Your task to perform on an android device: toggle priority inbox in the gmail app Image 0: 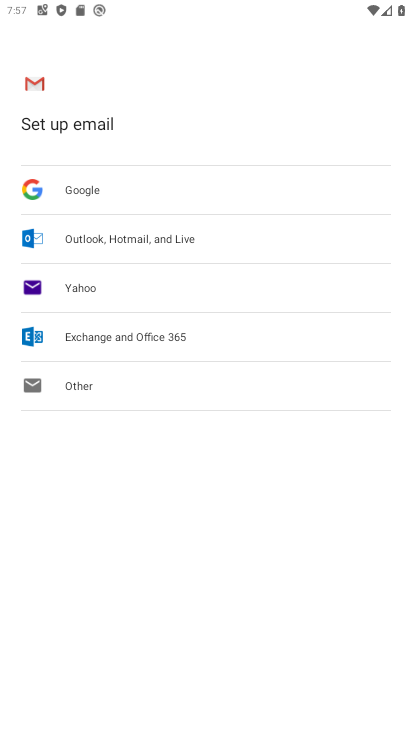
Step 0: press home button
Your task to perform on an android device: toggle priority inbox in the gmail app Image 1: 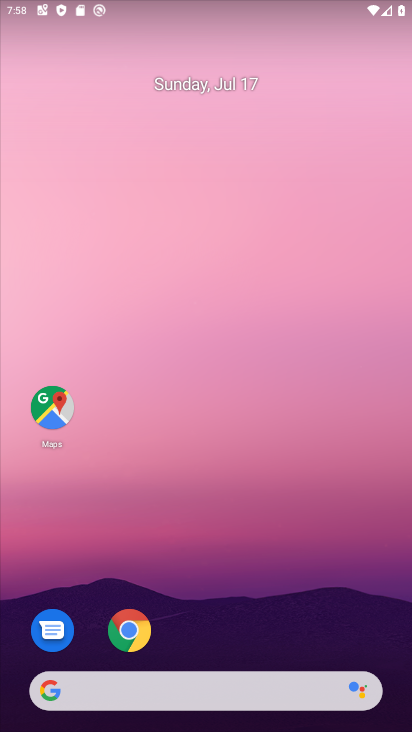
Step 1: drag from (144, 245) to (149, 110)
Your task to perform on an android device: toggle priority inbox in the gmail app Image 2: 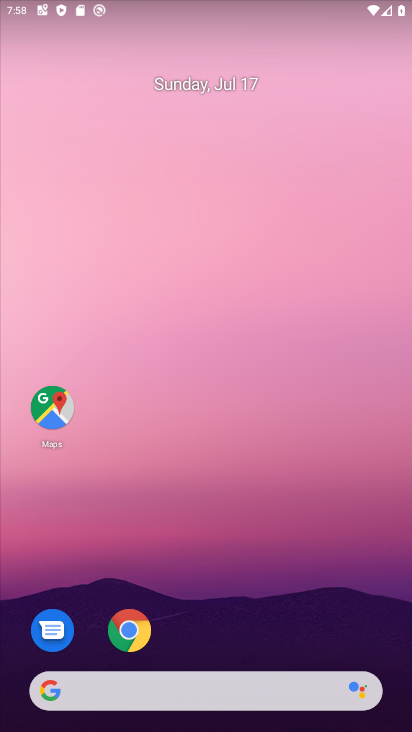
Step 2: drag from (187, 718) to (218, 3)
Your task to perform on an android device: toggle priority inbox in the gmail app Image 3: 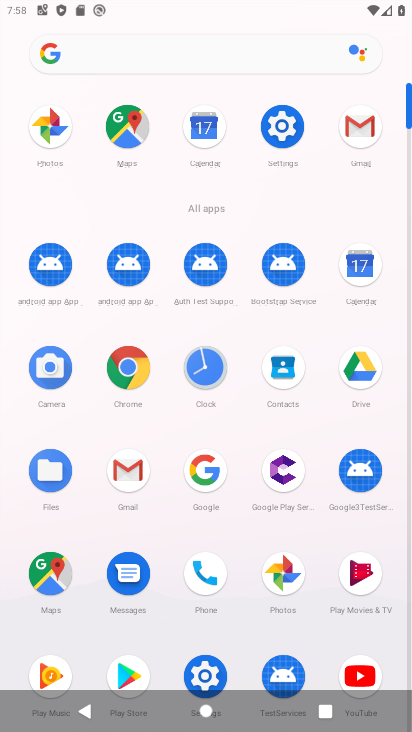
Step 3: click (345, 122)
Your task to perform on an android device: toggle priority inbox in the gmail app Image 4: 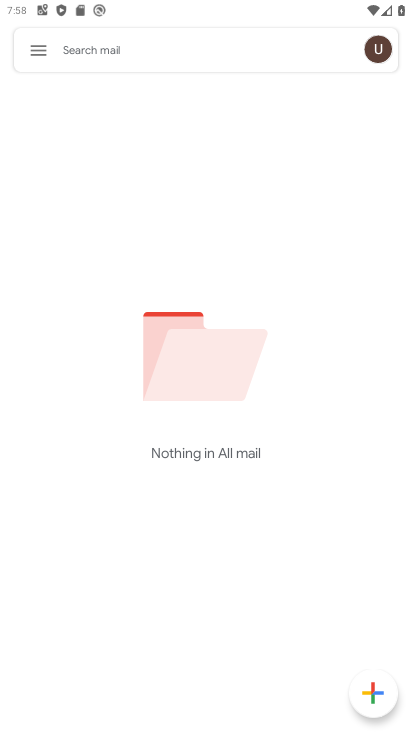
Step 4: click (33, 58)
Your task to perform on an android device: toggle priority inbox in the gmail app Image 5: 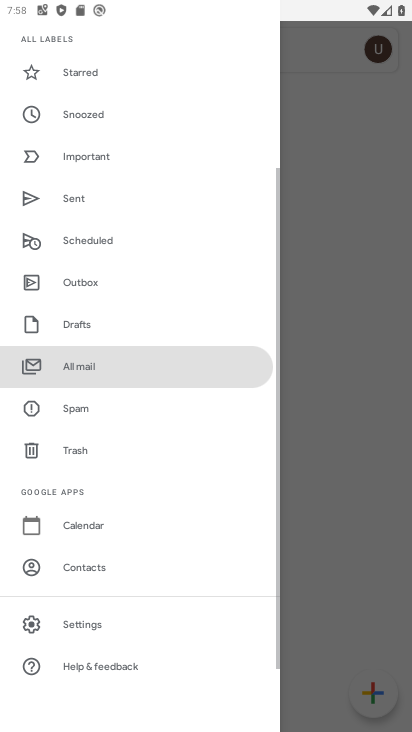
Step 5: click (111, 611)
Your task to perform on an android device: toggle priority inbox in the gmail app Image 6: 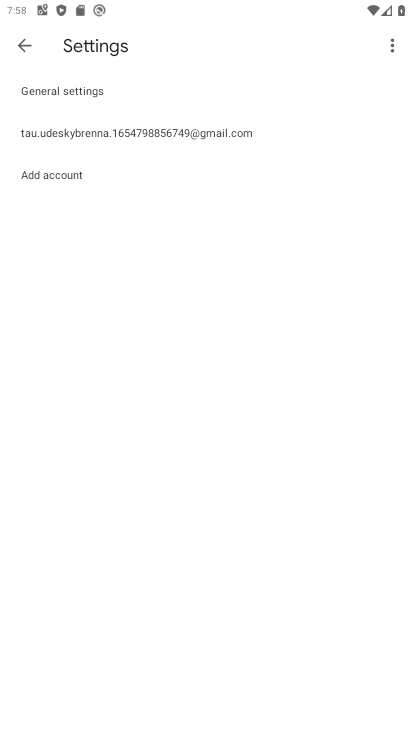
Step 6: click (91, 130)
Your task to perform on an android device: toggle priority inbox in the gmail app Image 7: 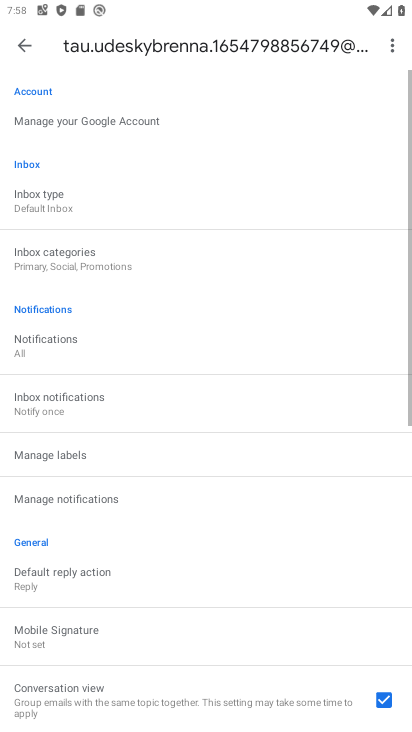
Step 7: click (61, 209)
Your task to perform on an android device: toggle priority inbox in the gmail app Image 8: 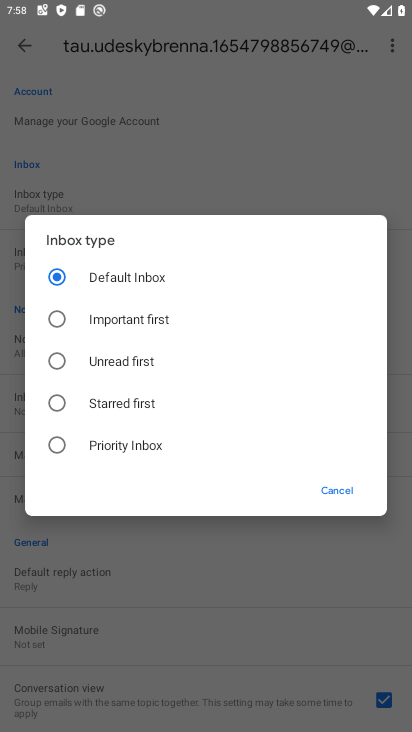
Step 8: click (126, 448)
Your task to perform on an android device: toggle priority inbox in the gmail app Image 9: 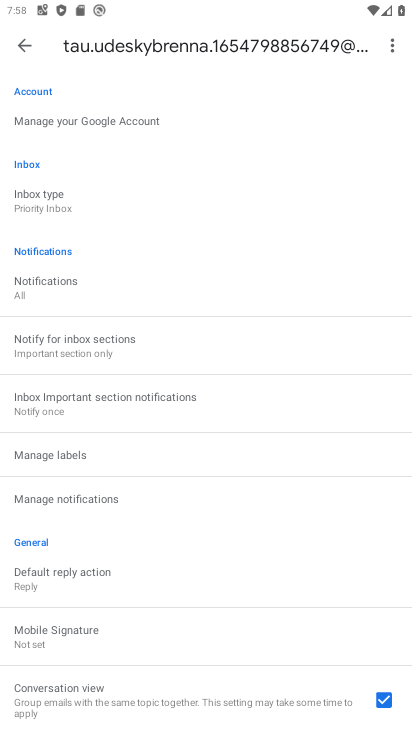
Step 9: task complete